Your task to perform on an android device: Show me the alarms in the clock app Image 0: 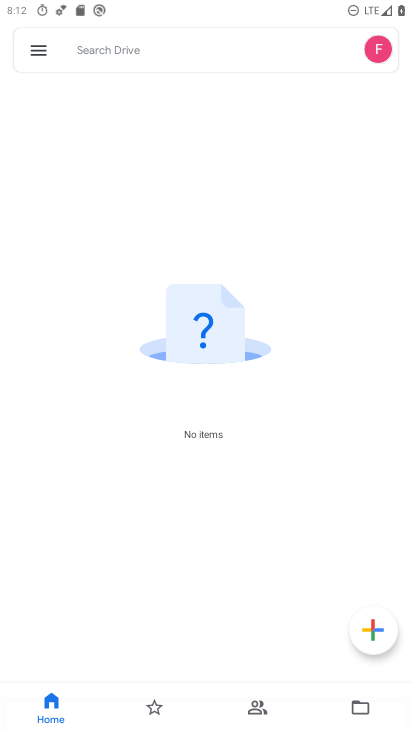
Step 0: press home button
Your task to perform on an android device: Show me the alarms in the clock app Image 1: 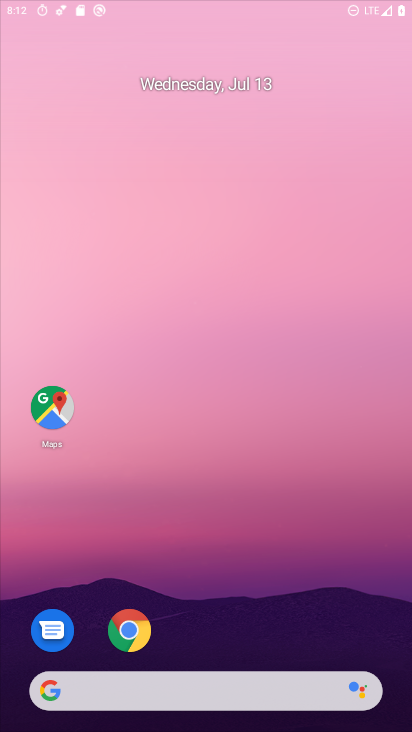
Step 1: drag from (369, 651) to (232, 42)
Your task to perform on an android device: Show me the alarms in the clock app Image 2: 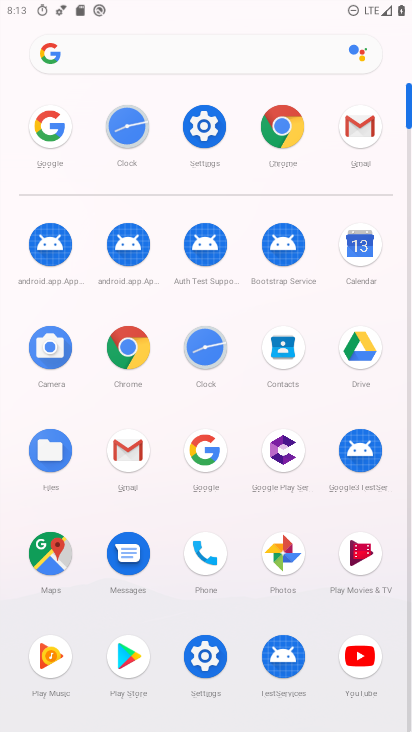
Step 2: click (204, 352)
Your task to perform on an android device: Show me the alarms in the clock app Image 3: 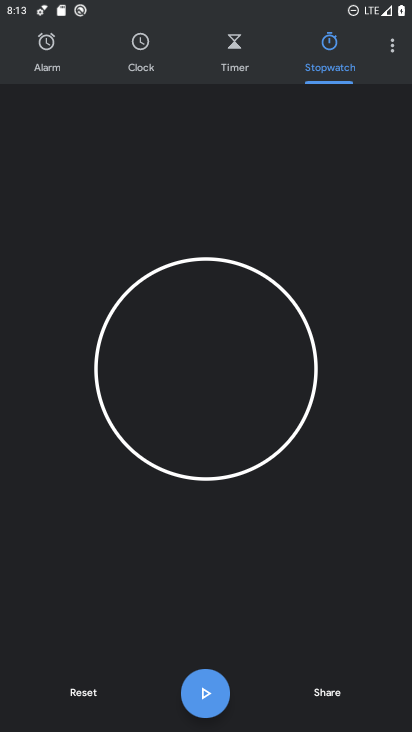
Step 3: click (34, 50)
Your task to perform on an android device: Show me the alarms in the clock app Image 4: 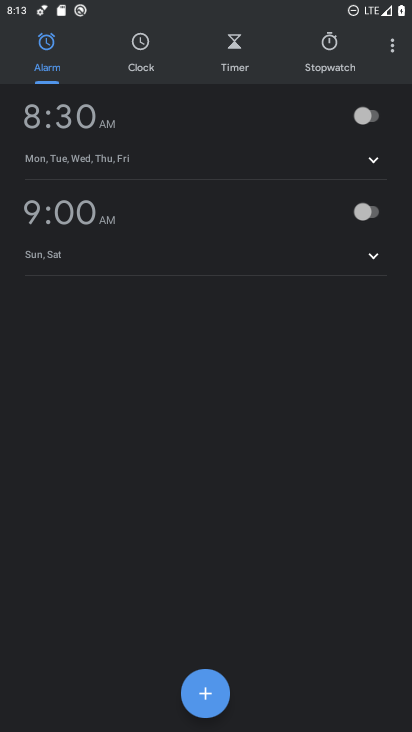
Step 4: task complete